Your task to perform on an android device: allow cookies in the chrome app Image 0: 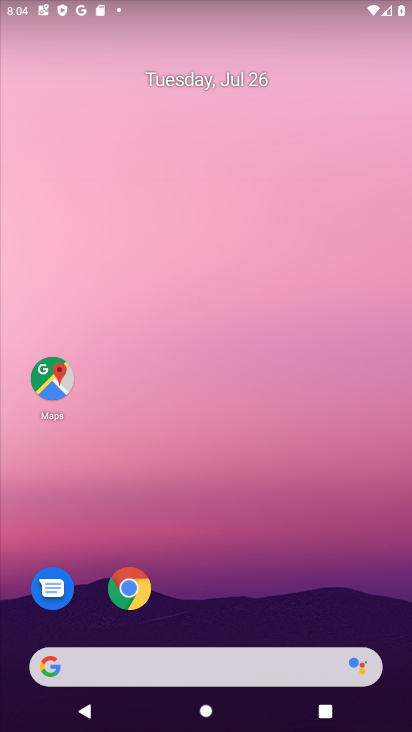
Step 0: press home button
Your task to perform on an android device: allow cookies in the chrome app Image 1: 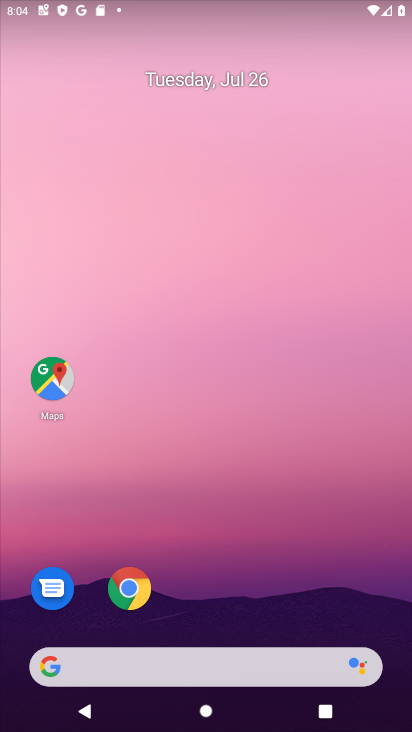
Step 1: click (141, 595)
Your task to perform on an android device: allow cookies in the chrome app Image 2: 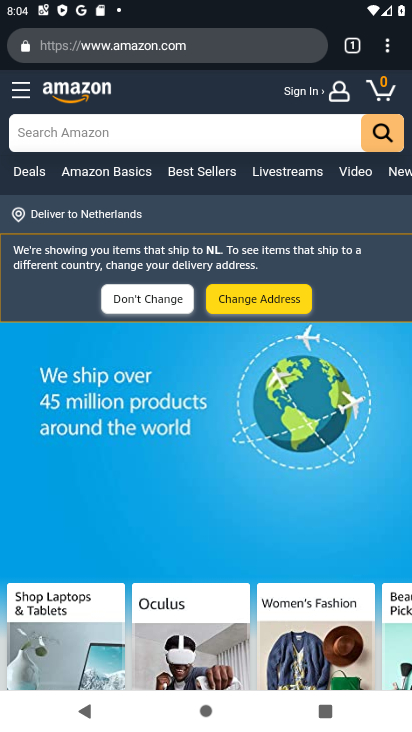
Step 2: drag from (388, 49) to (231, 552)
Your task to perform on an android device: allow cookies in the chrome app Image 3: 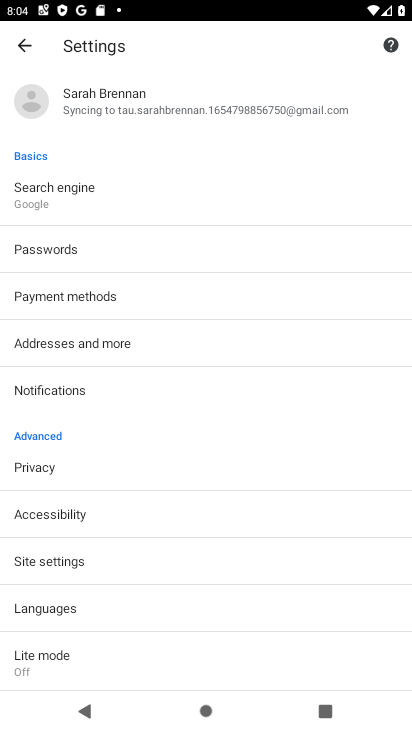
Step 3: drag from (114, 426) to (123, 155)
Your task to perform on an android device: allow cookies in the chrome app Image 4: 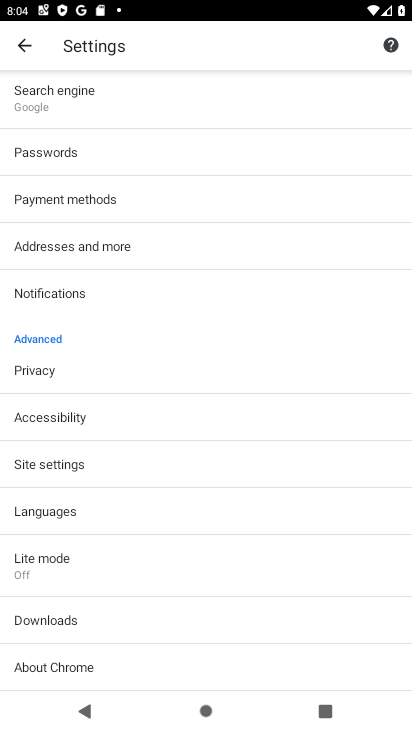
Step 4: click (48, 469)
Your task to perform on an android device: allow cookies in the chrome app Image 5: 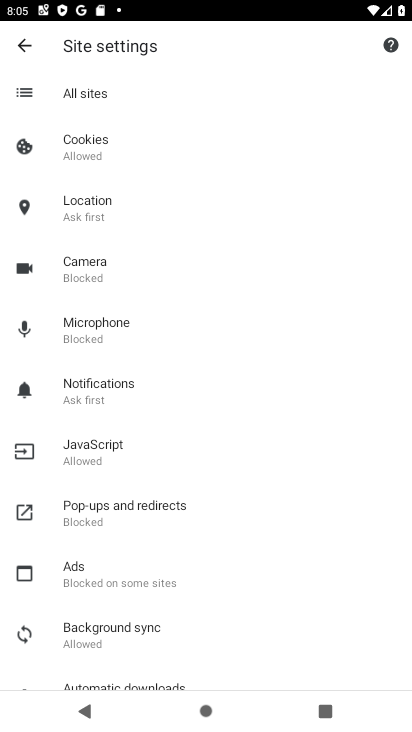
Step 5: click (99, 152)
Your task to perform on an android device: allow cookies in the chrome app Image 6: 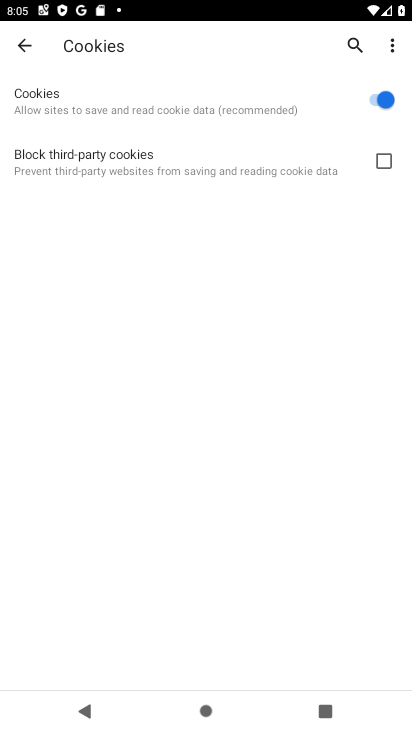
Step 6: task complete